Your task to perform on an android device: empty trash in google photos Image 0: 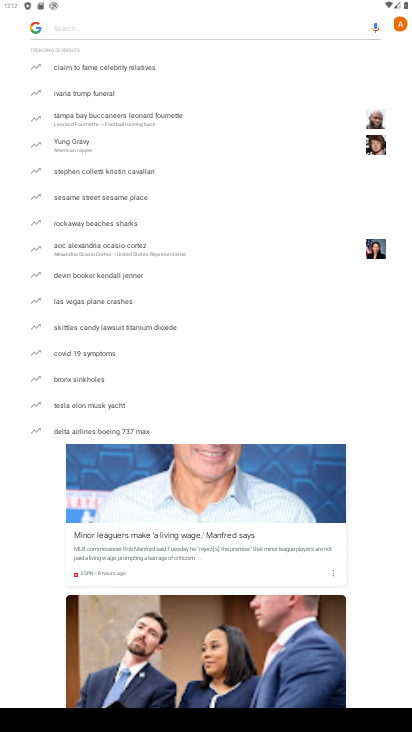
Step 0: press home button
Your task to perform on an android device: empty trash in google photos Image 1: 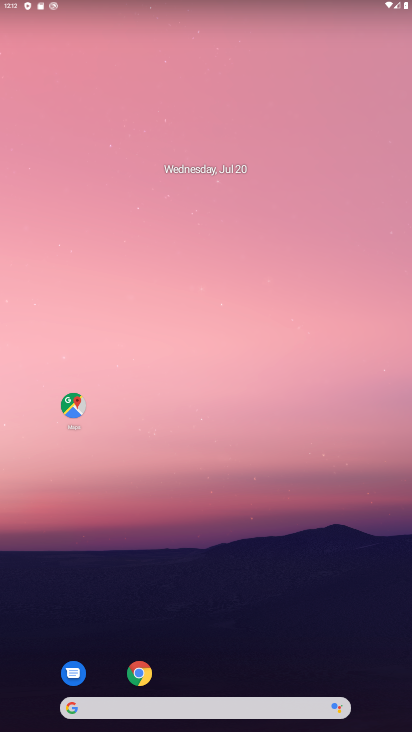
Step 1: drag from (243, 606) to (162, 29)
Your task to perform on an android device: empty trash in google photos Image 2: 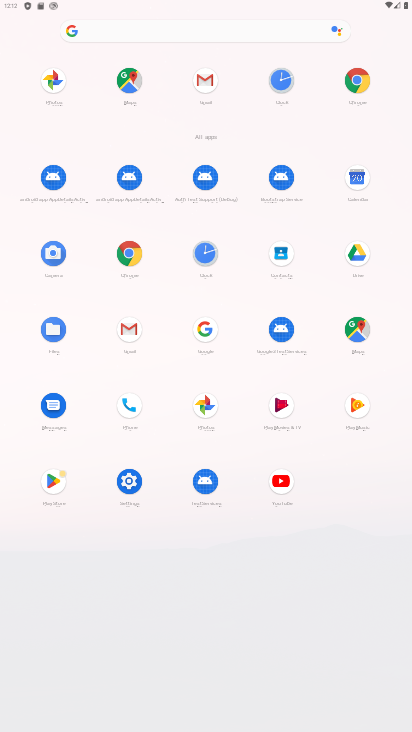
Step 2: click (48, 80)
Your task to perform on an android device: empty trash in google photos Image 3: 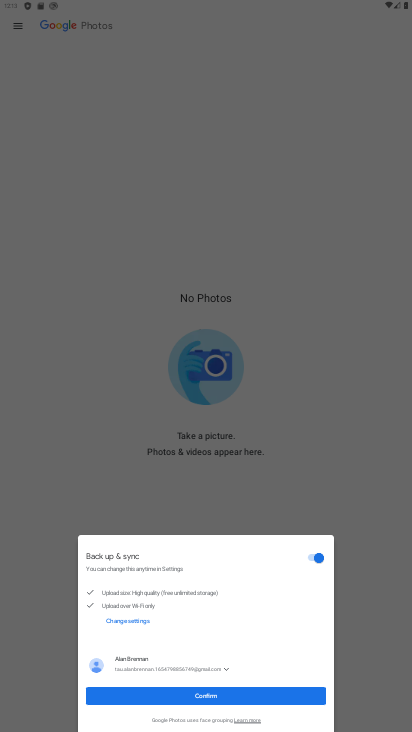
Step 3: click (202, 696)
Your task to perform on an android device: empty trash in google photos Image 4: 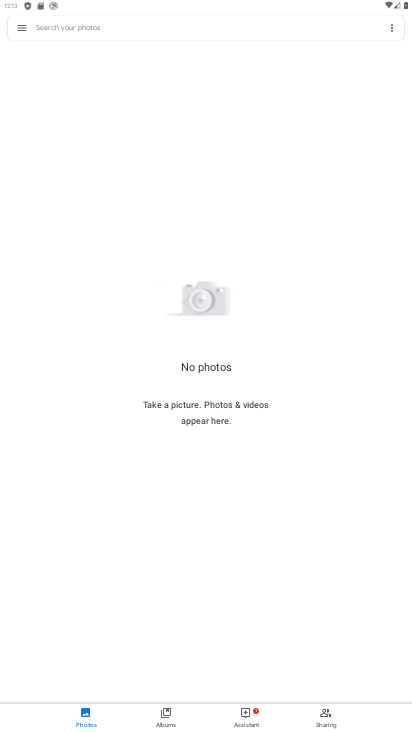
Step 4: task complete